Your task to perform on an android device: Open Chrome and go to settings Image 0: 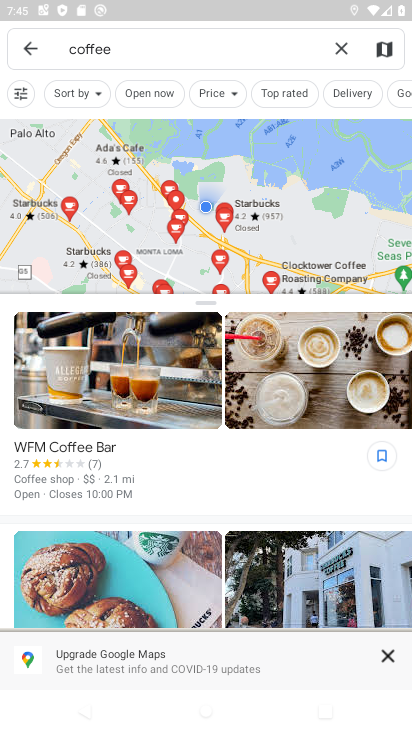
Step 0: press home button
Your task to perform on an android device: Open Chrome and go to settings Image 1: 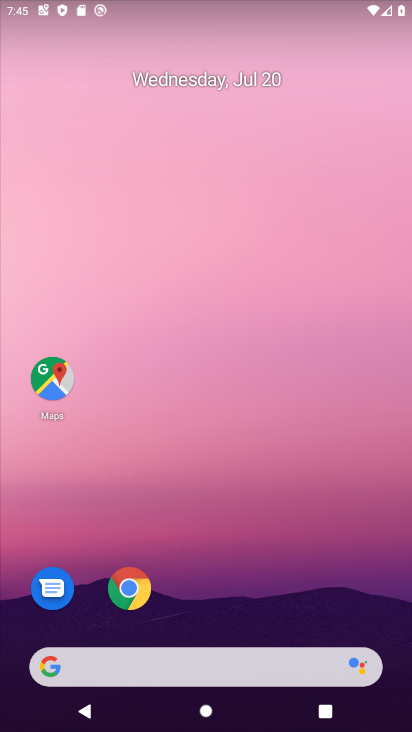
Step 1: click (130, 585)
Your task to perform on an android device: Open Chrome and go to settings Image 2: 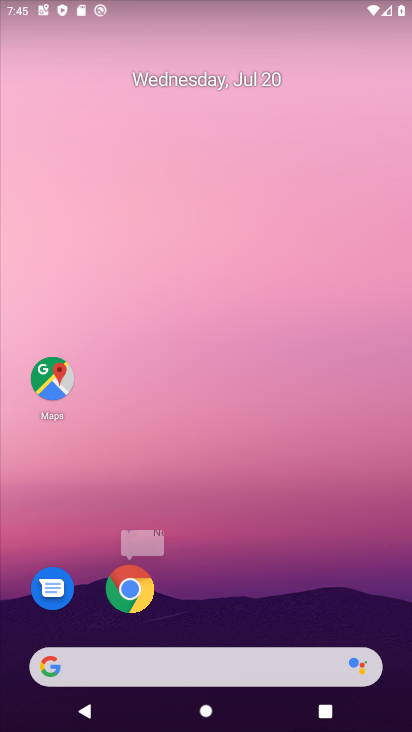
Step 2: click (130, 585)
Your task to perform on an android device: Open Chrome and go to settings Image 3: 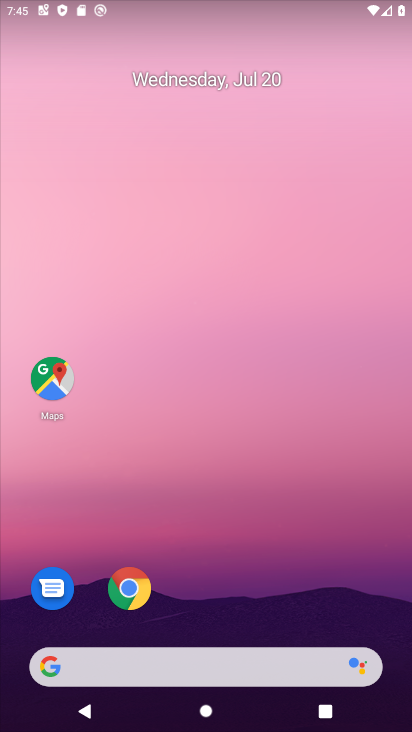
Step 3: click (137, 584)
Your task to perform on an android device: Open Chrome and go to settings Image 4: 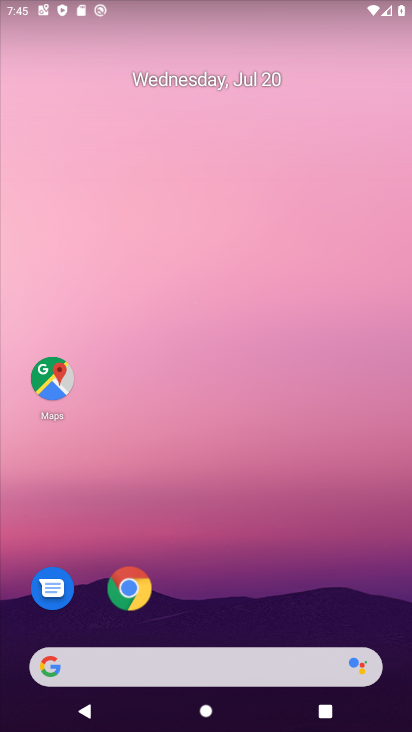
Step 4: click (137, 584)
Your task to perform on an android device: Open Chrome and go to settings Image 5: 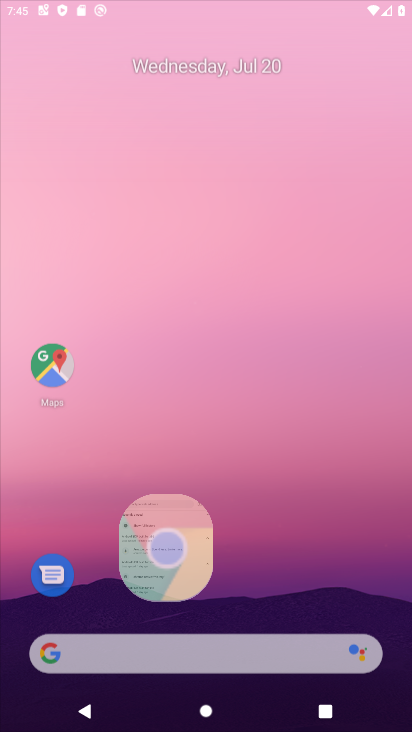
Step 5: click (137, 584)
Your task to perform on an android device: Open Chrome and go to settings Image 6: 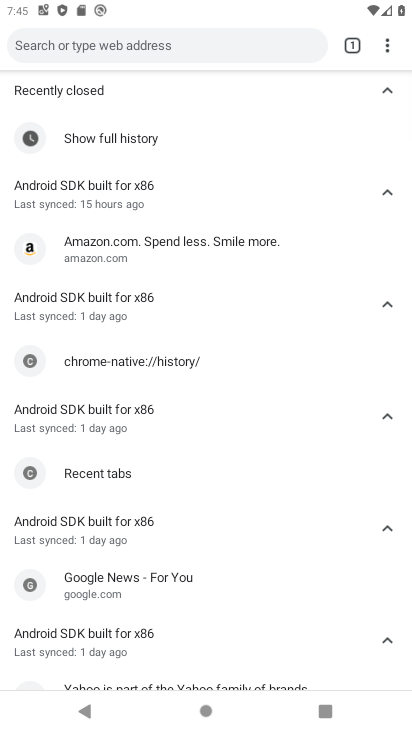
Step 6: click (386, 47)
Your task to perform on an android device: Open Chrome and go to settings Image 7: 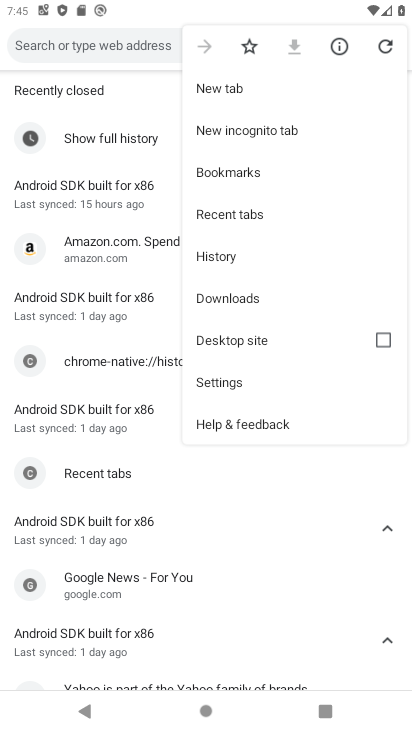
Step 7: click (246, 385)
Your task to perform on an android device: Open Chrome and go to settings Image 8: 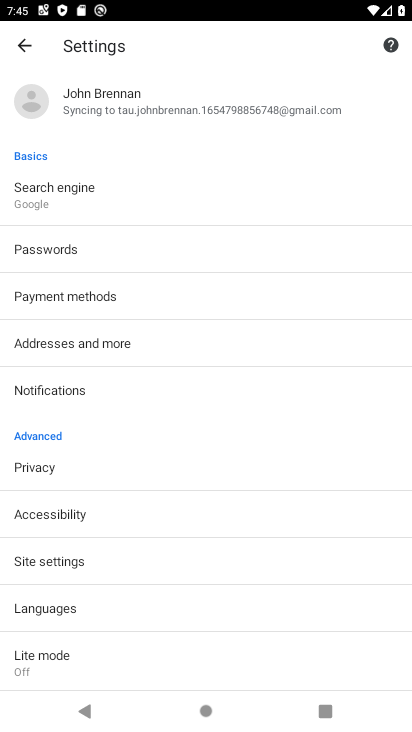
Step 8: task complete